Your task to perform on an android device: change alarm snooze length Image 0: 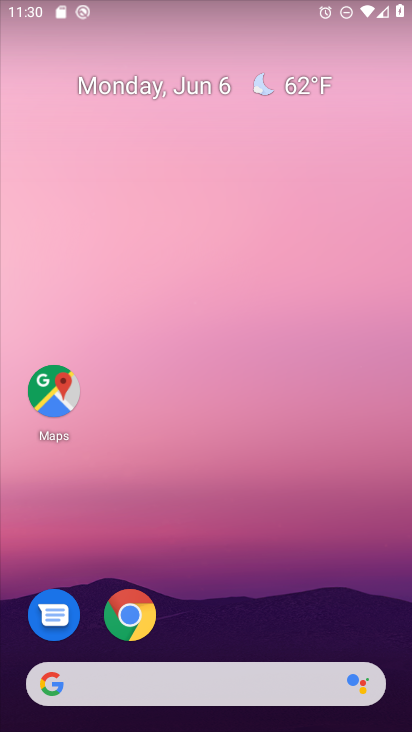
Step 0: drag from (231, 672) to (68, 40)
Your task to perform on an android device: change alarm snooze length Image 1: 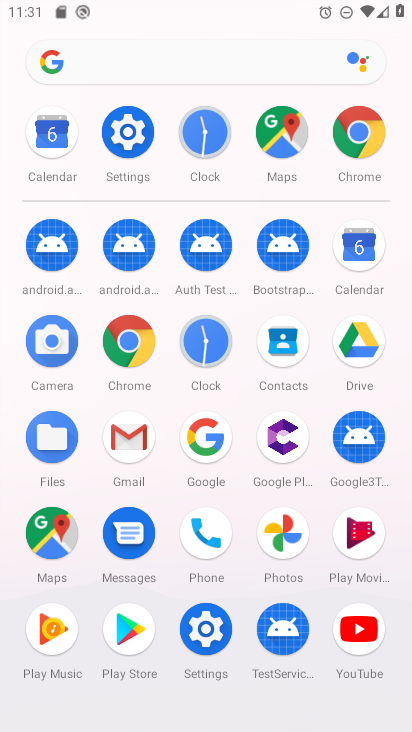
Step 1: click (209, 114)
Your task to perform on an android device: change alarm snooze length Image 2: 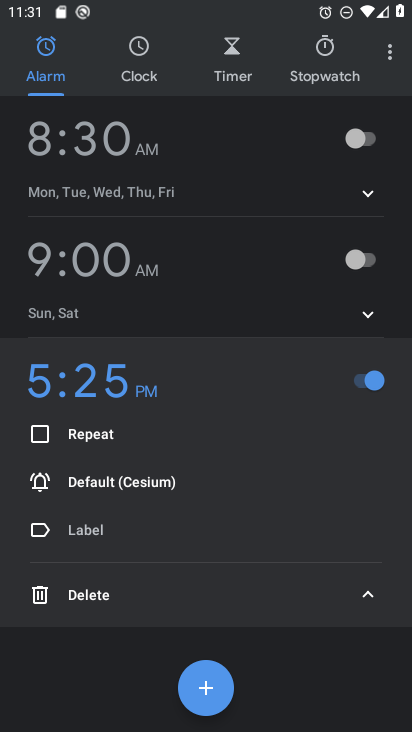
Step 2: click (390, 55)
Your task to perform on an android device: change alarm snooze length Image 3: 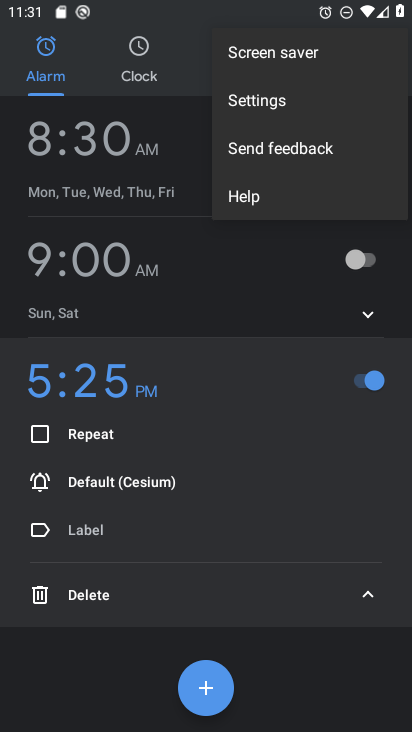
Step 3: click (289, 96)
Your task to perform on an android device: change alarm snooze length Image 4: 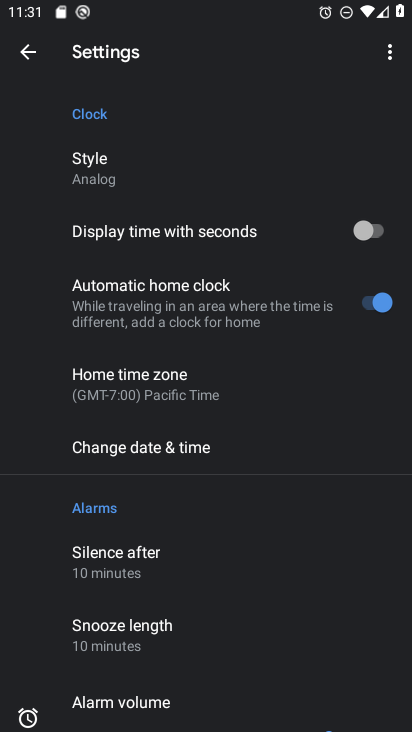
Step 4: click (169, 630)
Your task to perform on an android device: change alarm snooze length Image 5: 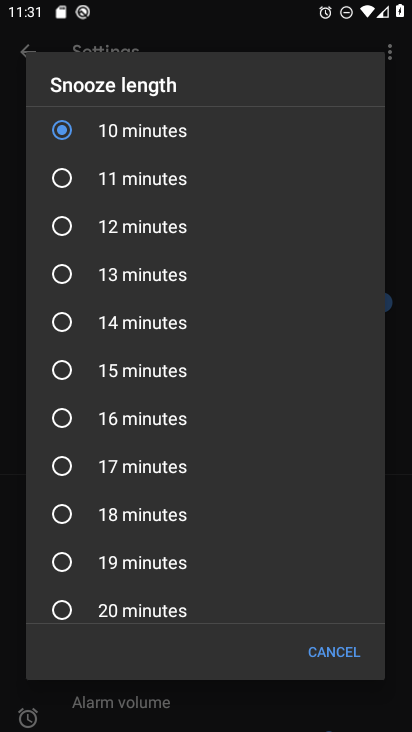
Step 5: click (63, 610)
Your task to perform on an android device: change alarm snooze length Image 6: 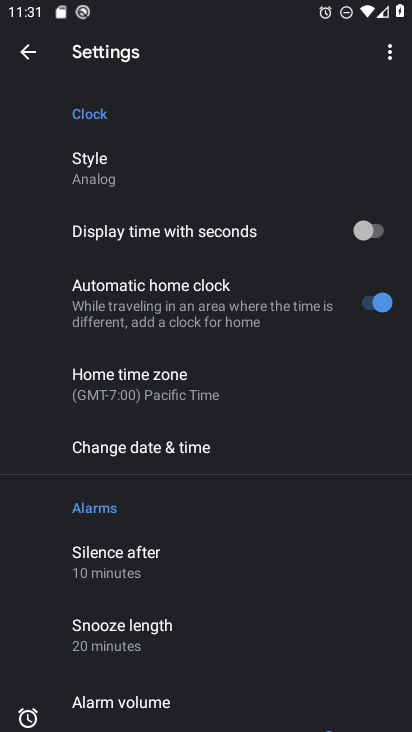
Step 6: task complete